Your task to perform on an android device: Open the calendar Image 0: 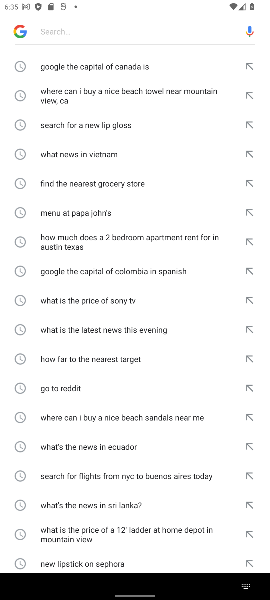
Step 0: press home button
Your task to perform on an android device: Open the calendar Image 1: 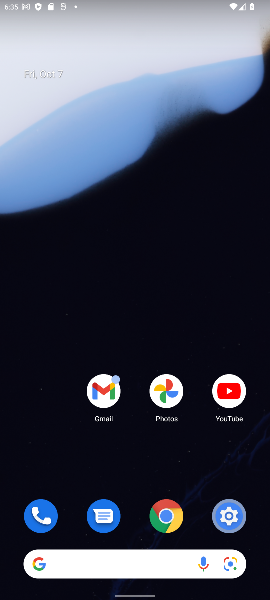
Step 1: drag from (143, 529) to (141, 43)
Your task to perform on an android device: Open the calendar Image 2: 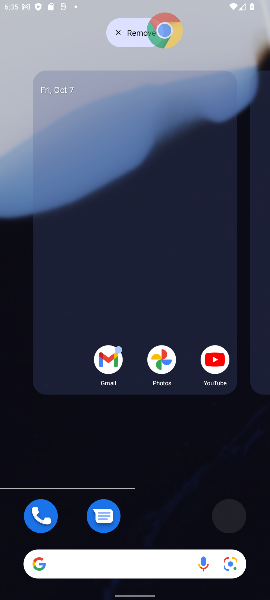
Step 2: click (108, 244)
Your task to perform on an android device: Open the calendar Image 3: 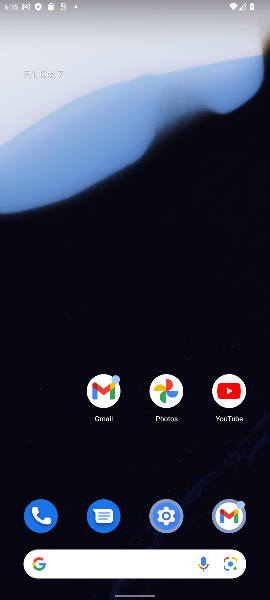
Step 3: drag from (146, 544) to (119, 209)
Your task to perform on an android device: Open the calendar Image 4: 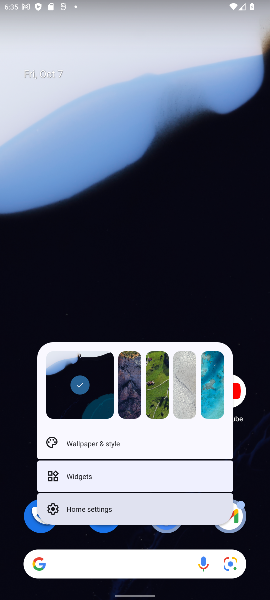
Step 4: click (119, 206)
Your task to perform on an android device: Open the calendar Image 5: 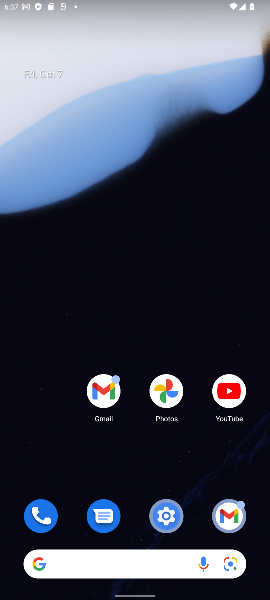
Step 5: drag from (142, 534) to (87, 58)
Your task to perform on an android device: Open the calendar Image 6: 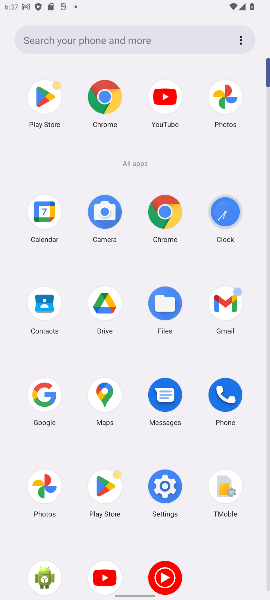
Step 6: click (53, 220)
Your task to perform on an android device: Open the calendar Image 7: 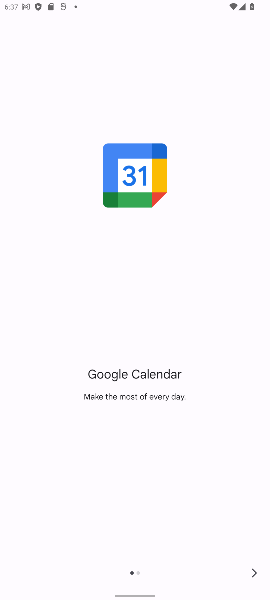
Step 7: task complete